Your task to perform on an android device: Go to CNN.com Image 0: 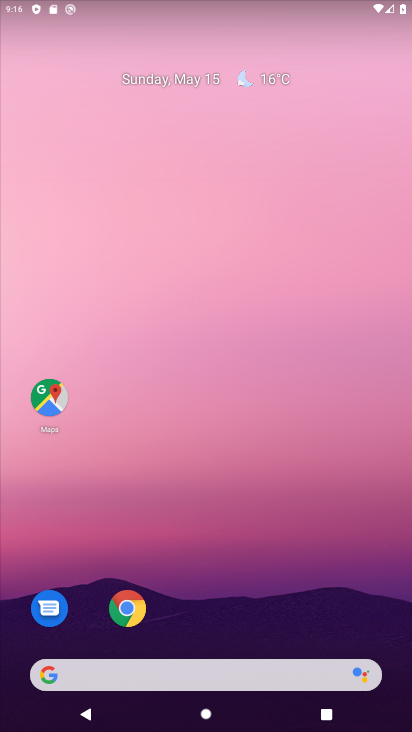
Step 0: click (123, 617)
Your task to perform on an android device: Go to CNN.com Image 1: 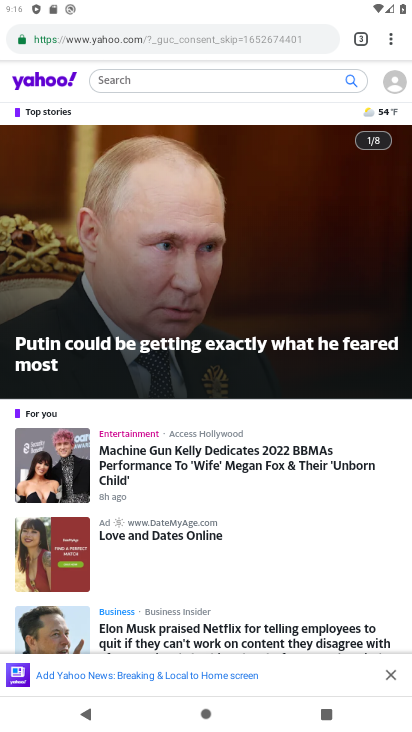
Step 1: click (365, 38)
Your task to perform on an android device: Go to CNN.com Image 2: 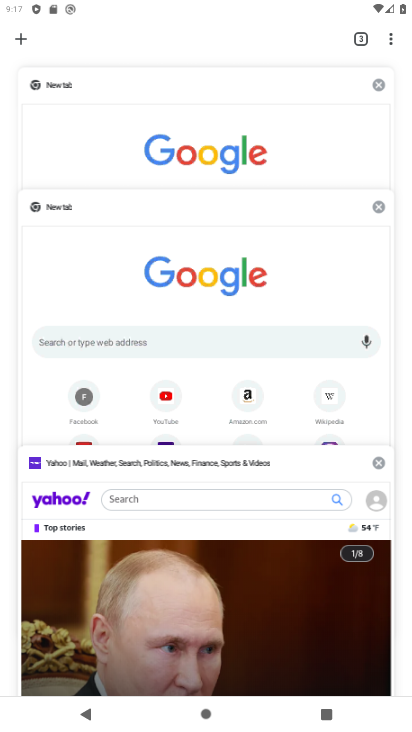
Step 2: click (184, 224)
Your task to perform on an android device: Go to CNN.com Image 3: 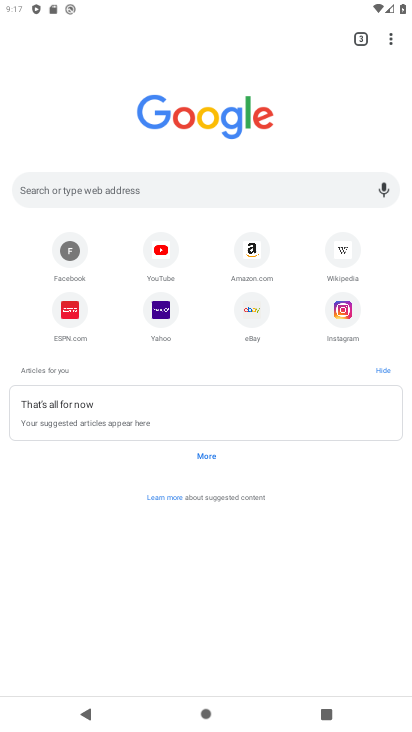
Step 3: click (206, 195)
Your task to perform on an android device: Go to CNN.com Image 4: 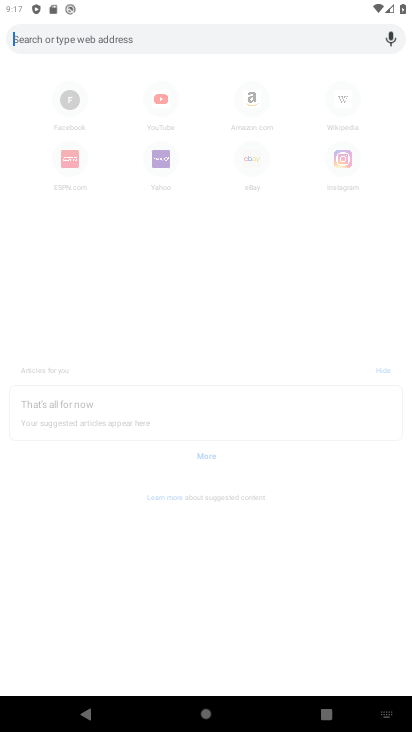
Step 4: type "cnn.com"
Your task to perform on an android device: Go to CNN.com Image 5: 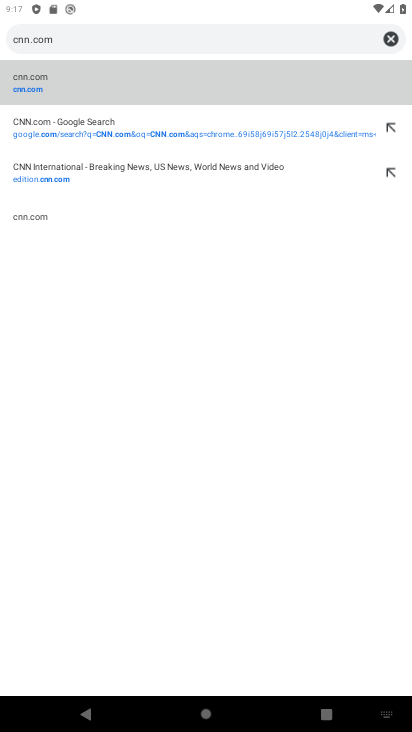
Step 5: click (124, 140)
Your task to perform on an android device: Go to CNN.com Image 6: 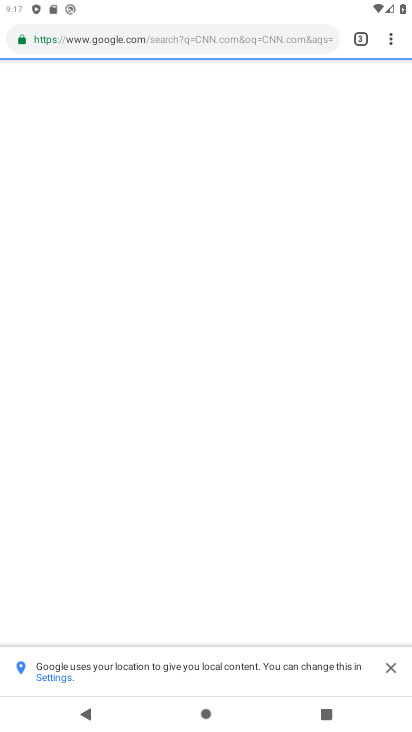
Step 6: task complete